Your task to perform on an android device: Open ESPN.com Image 0: 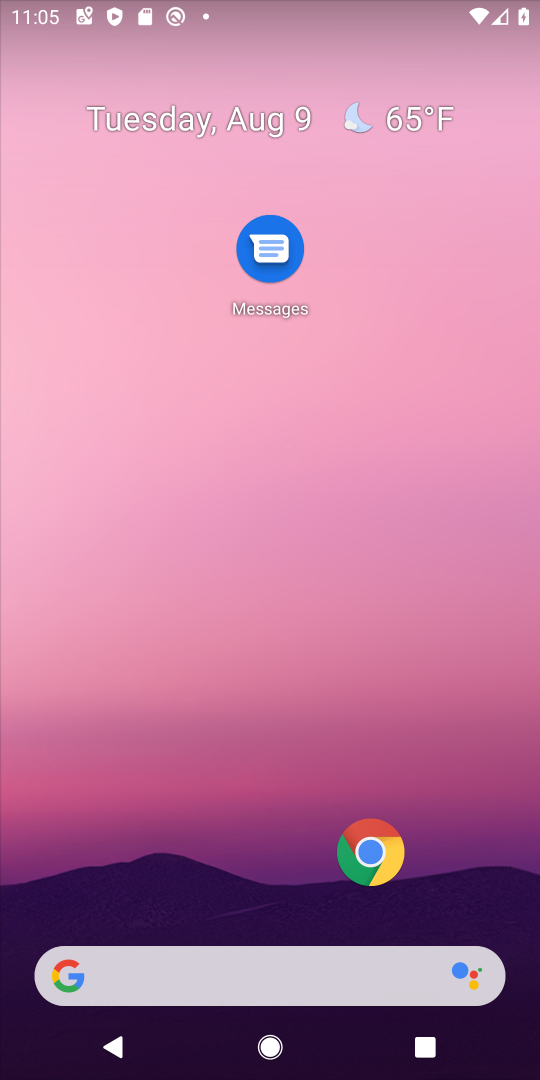
Step 0: task complete